Your task to perform on an android device: check android version Image 0: 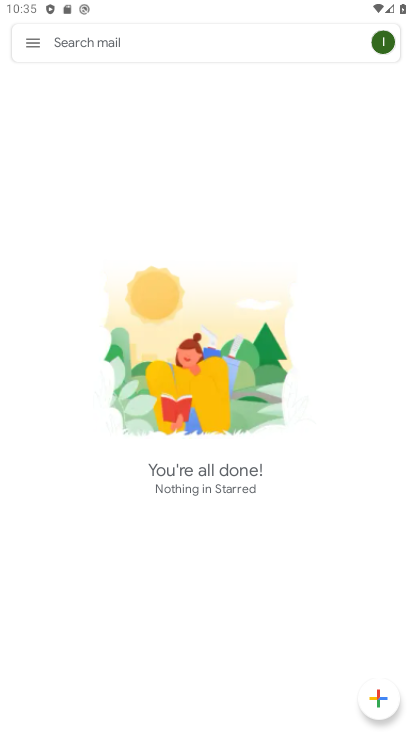
Step 0: press home button
Your task to perform on an android device: check android version Image 1: 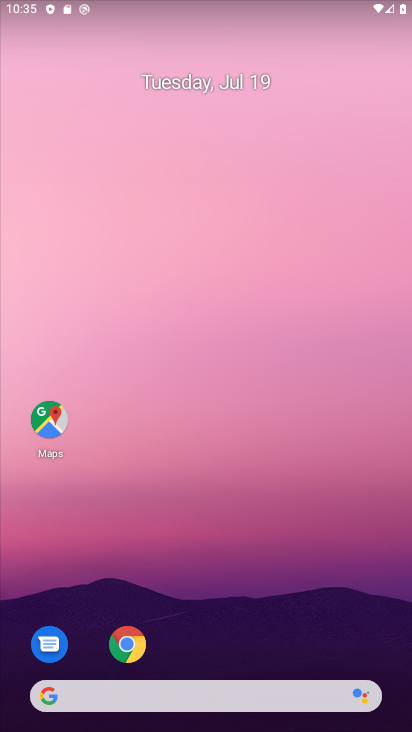
Step 1: drag from (266, 575) to (181, 101)
Your task to perform on an android device: check android version Image 2: 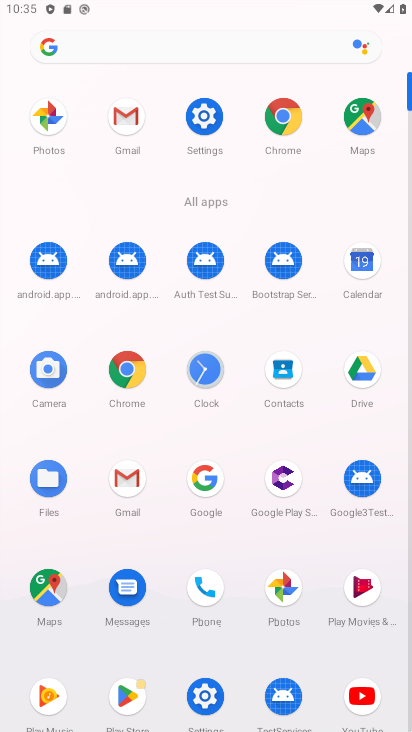
Step 2: click (201, 119)
Your task to perform on an android device: check android version Image 3: 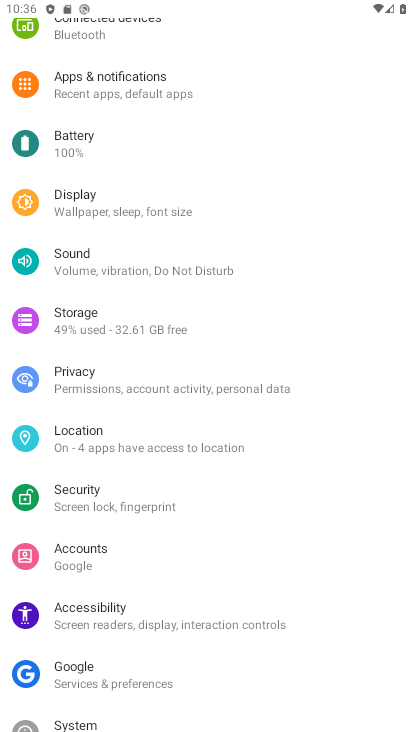
Step 3: drag from (204, 562) to (221, 169)
Your task to perform on an android device: check android version Image 4: 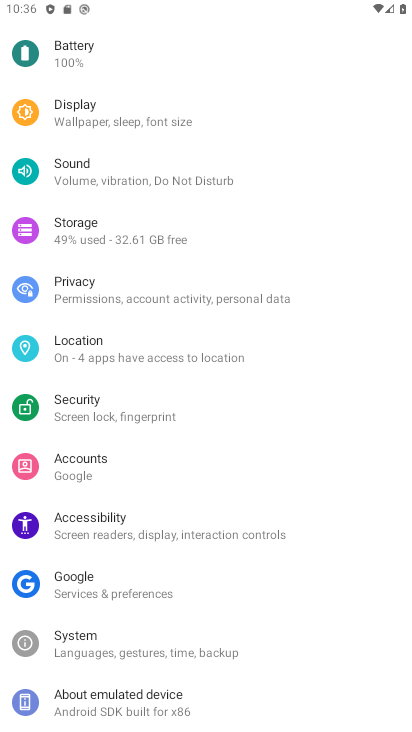
Step 4: click (117, 695)
Your task to perform on an android device: check android version Image 5: 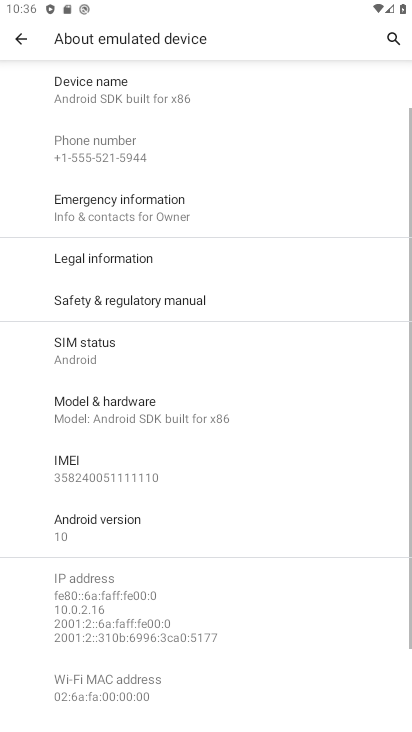
Step 5: task complete